Your task to perform on an android device: Go to Yahoo.com Image 0: 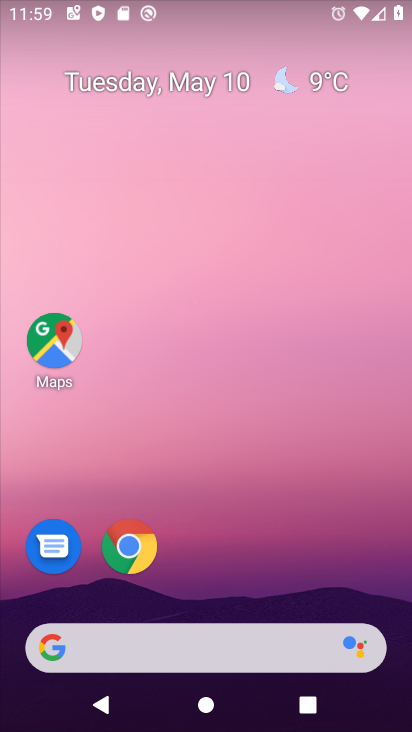
Step 0: drag from (188, 614) to (234, 218)
Your task to perform on an android device: Go to Yahoo.com Image 1: 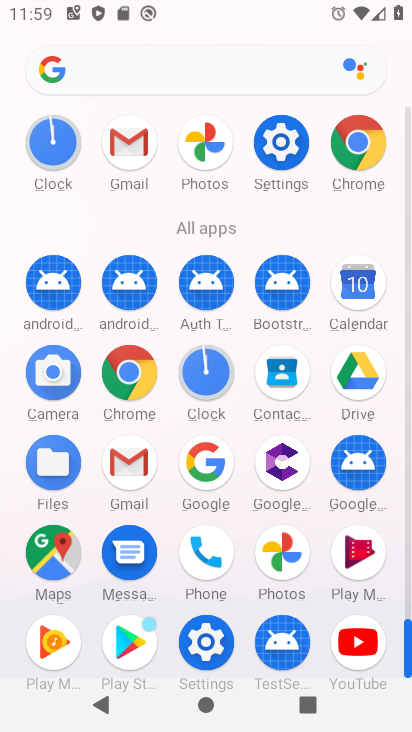
Step 1: click (202, 74)
Your task to perform on an android device: Go to Yahoo.com Image 2: 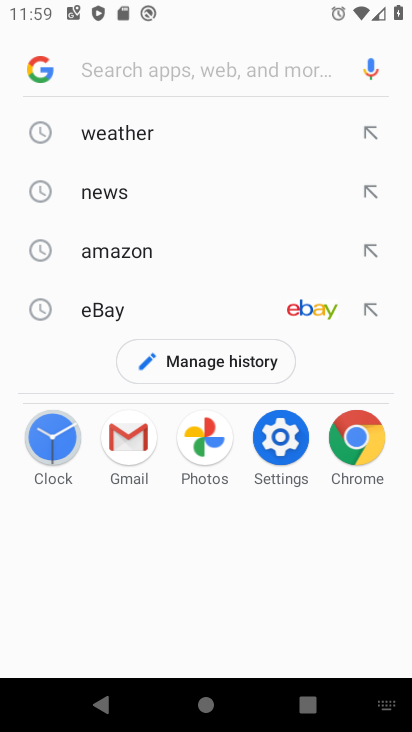
Step 2: type "yahoo.com"
Your task to perform on an android device: Go to Yahoo.com Image 3: 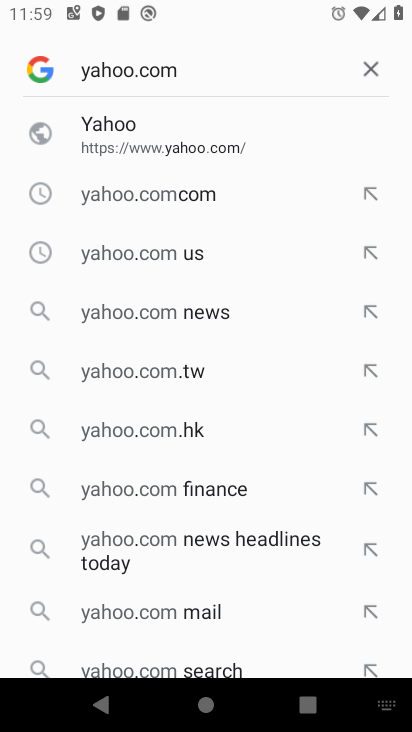
Step 3: click (156, 142)
Your task to perform on an android device: Go to Yahoo.com Image 4: 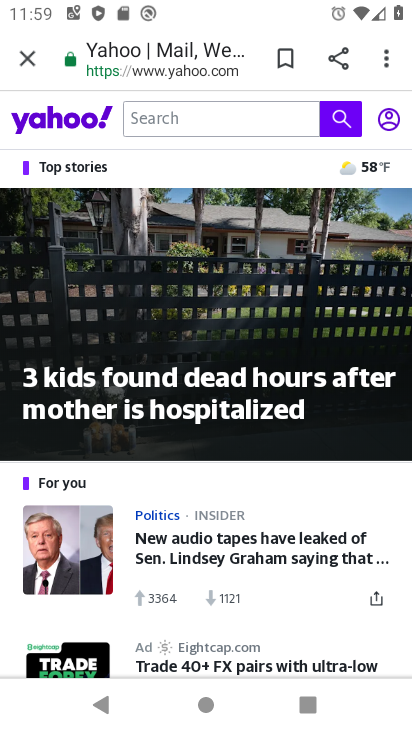
Step 4: task complete